Your task to perform on an android device: Open settings Image 0: 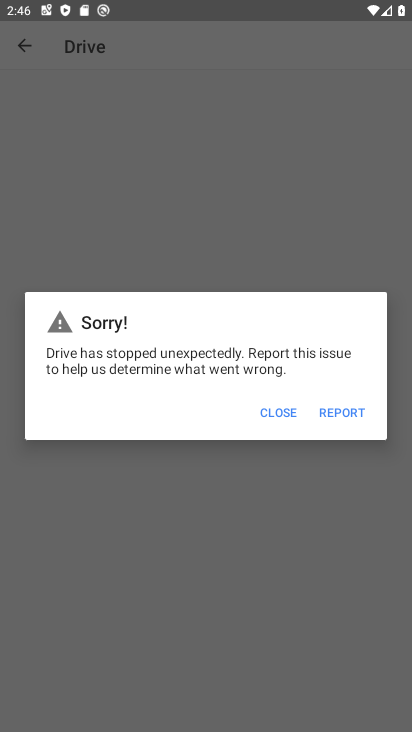
Step 0: press home button
Your task to perform on an android device: Open settings Image 1: 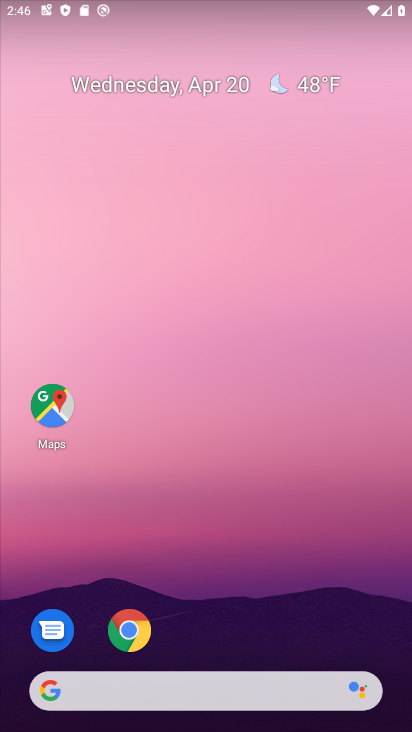
Step 1: drag from (258, 727) to (260, 256)
Your task to perform on an android device: Open settings Image 2: 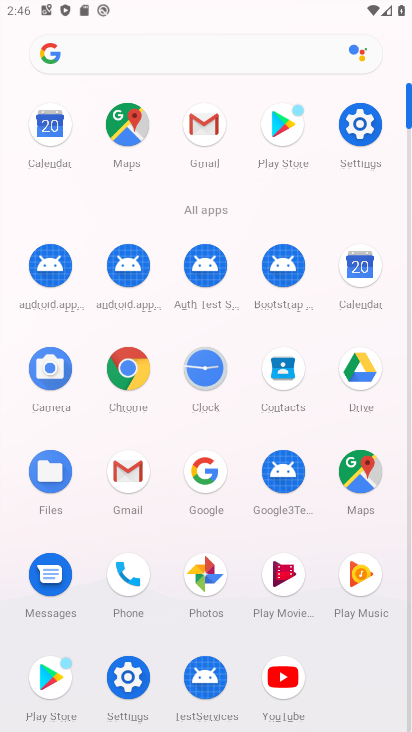
Step 2: click (357, 131)
Your task to perform on an android device: Open settings Image 3: 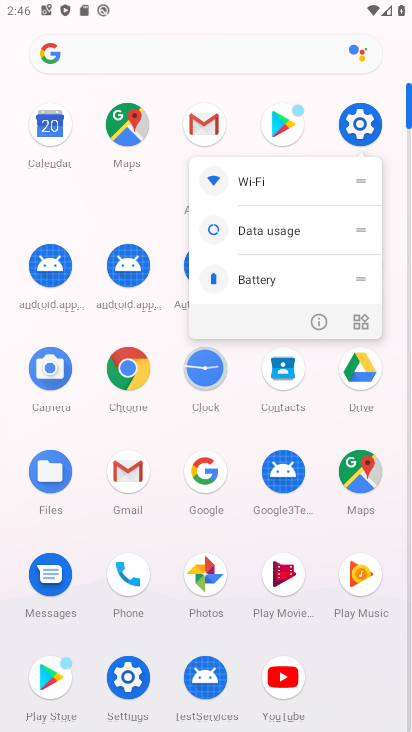
Step 3: click (363, 119)
Your task to perform on an android device: Open settings Image 4: 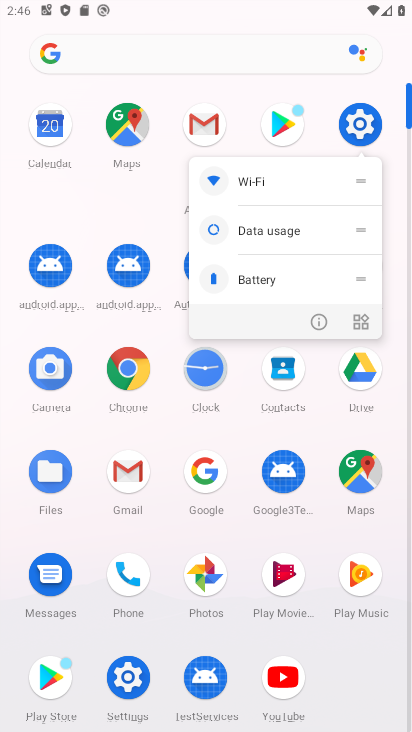
Step 4: click (363, 119)
Your task to perform on an android device: Open settings Image 5: 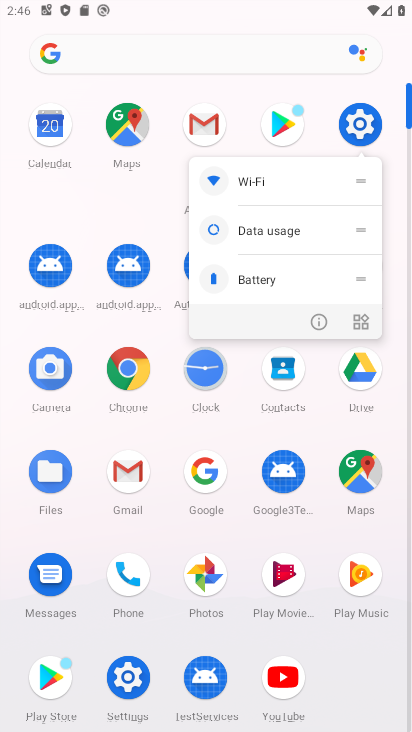
Step 5: click (356, 121)
Your task to perform on an android device: Open settings Image 6: 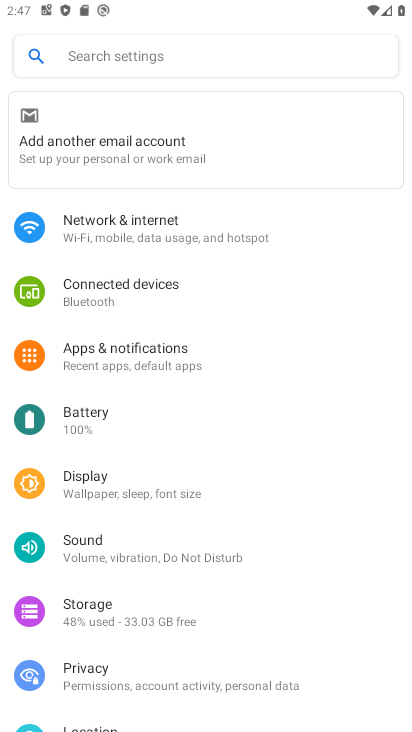
Step 6: task complete